Your task to perform on an android device: What's the weather? Image 0: 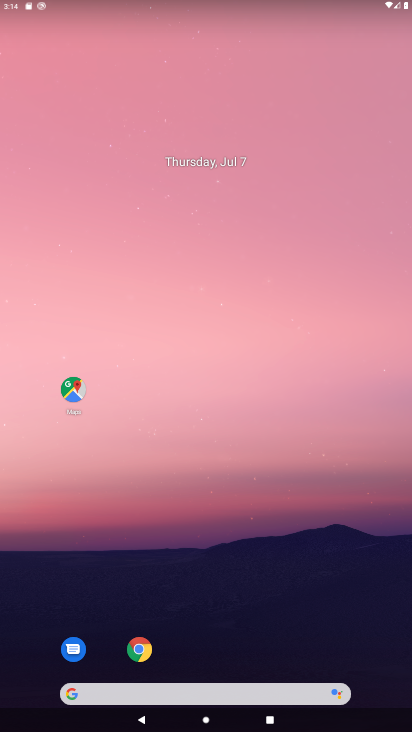
Step 0: drag from (205, 575) to (279, 4)
Your task to perform on an android device: What's the weather? Image 1: 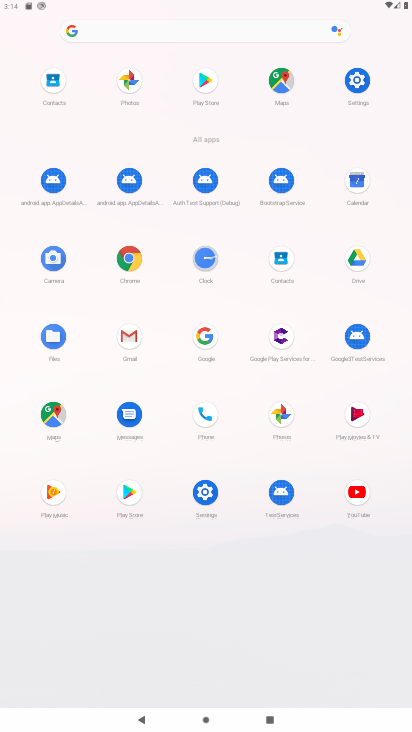
Step 1: click (165, 32)
Your task to perform on an android device: What's the weather? Image 2: 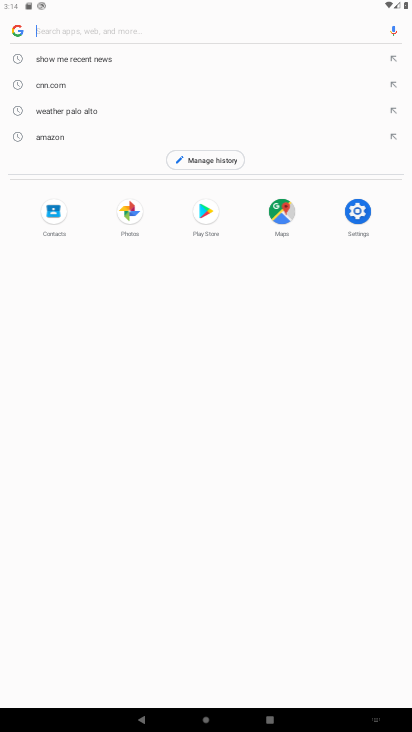
Step 2: type "weather"
Your task to perform on an android device: What's the weather? Image 3: 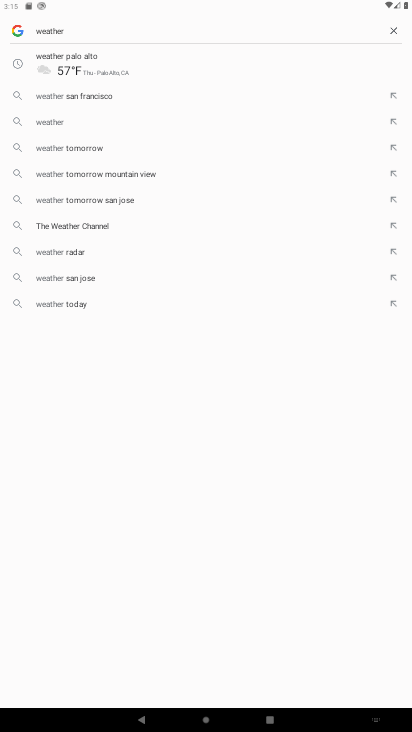
Step 3: click (130, 56)
Your task to perform on an android device: What's the weather? Image 4: 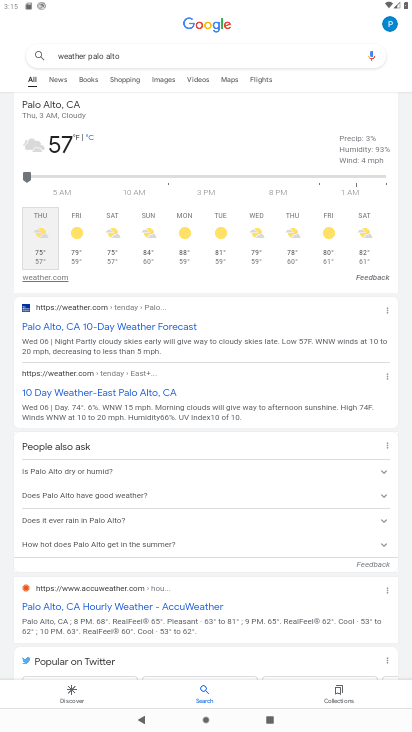
Step 4: task complete